Your task to perform on an android device: open sync settings in chrome Image 0: 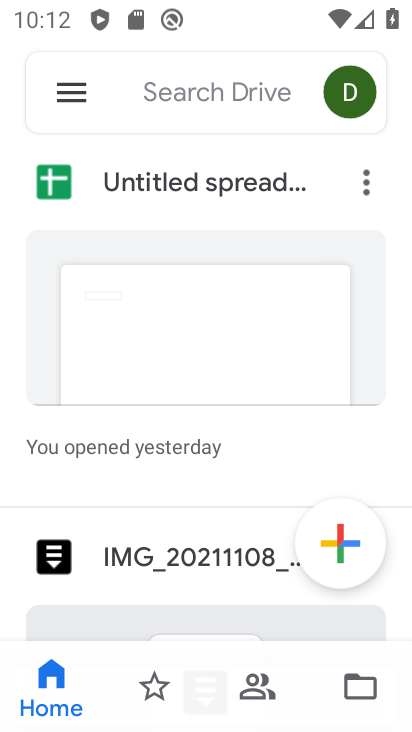
Step 0: press home button
Your task to perform on an android device: open sync settings in chrome Image 1: 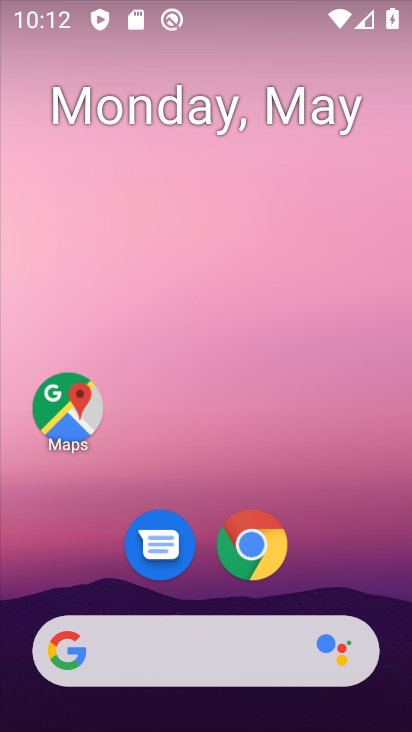
Step 1: drag from (199, 604) to (113, 40)
Your task to perform on an android device: open sync settings in chrome Image 2: 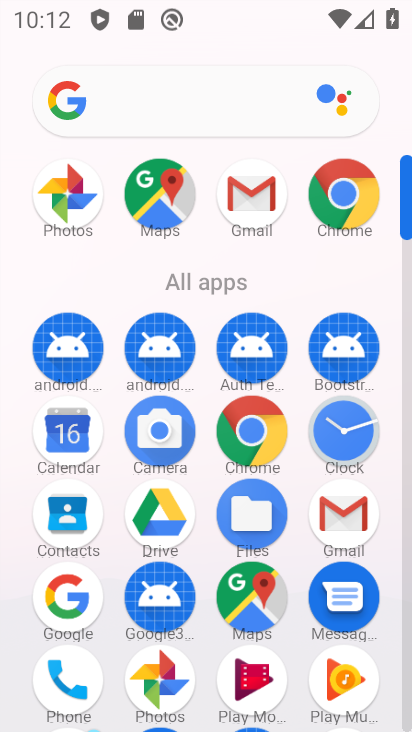
Step 2: click (242, 436)
Your task to perform on an android device: open sync settings in chrome Image 3: 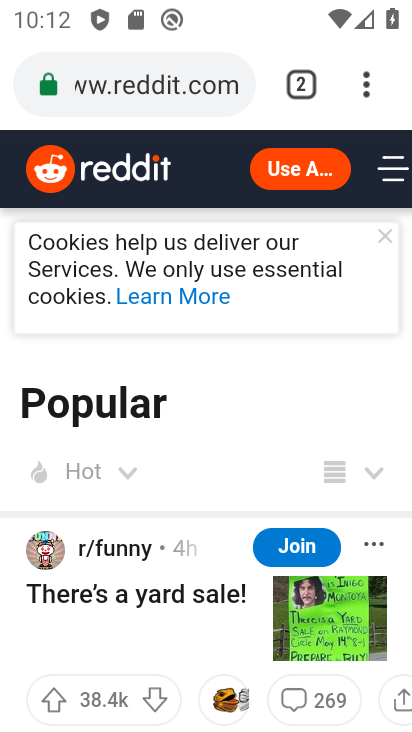
Step 3: click (372, 98)
Your task to perform on an android device: open sync settings in chrome Image 4: 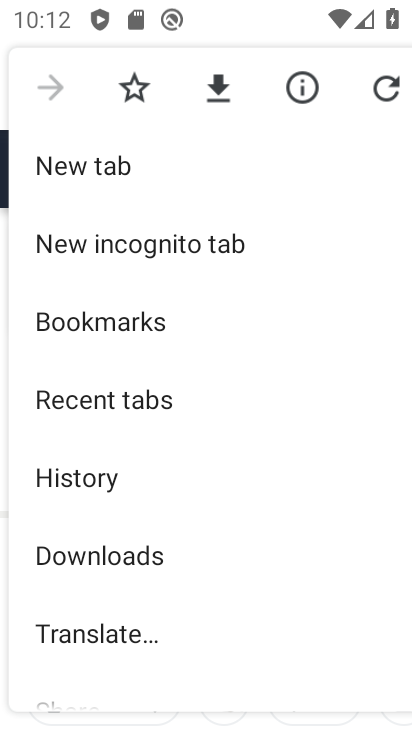
Step 4: drag from (206, 597) to (177, 158)
Your task to perform on an android device: open sync settings in chrome Image 5: 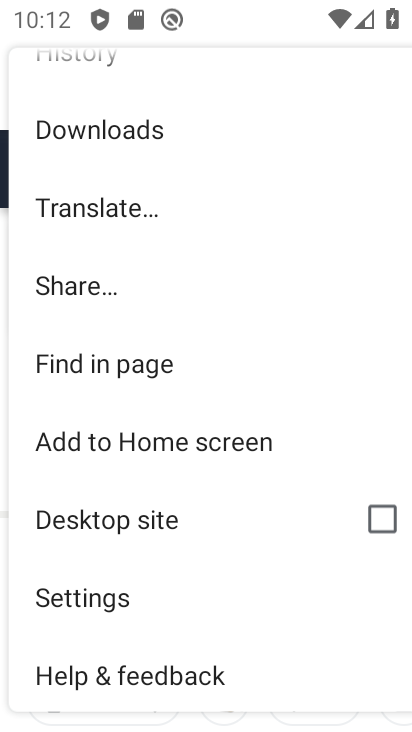
Step 5: click (100, 604)
Your task to perform on an android device: open sync settings in chrome Image 6: 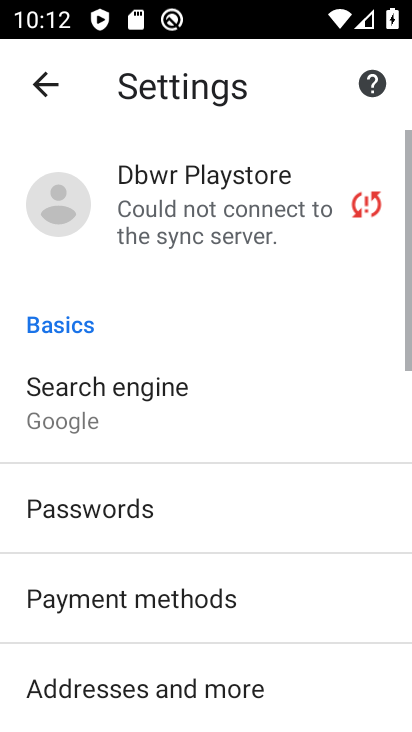
Step 6: drag from (117, 581) to (118, 465)
Your task to perform on an android device: open sync settings in chrome Image 7: 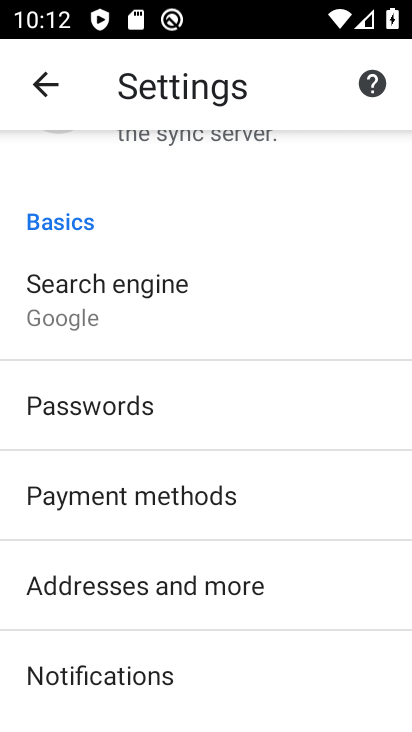
Step 7: click (122, 155)
Your task to perform on an android device: open sync settings in chrome Image 8: 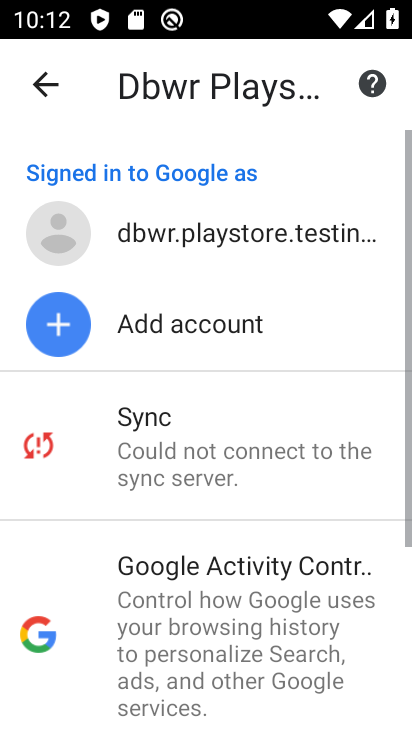
Step 8: click (179, 440)
Your task to perform on an android device: open sync settings in chrome Image 9: 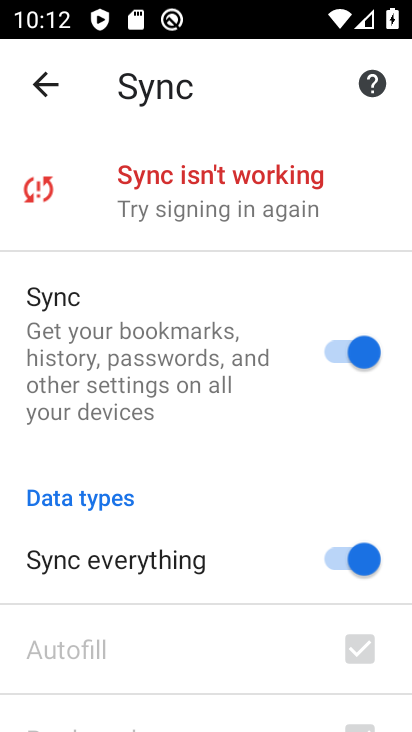
Step 9: task complete